Your task to perform on an android device: turn off notifications settings in the gmail app Image 0: 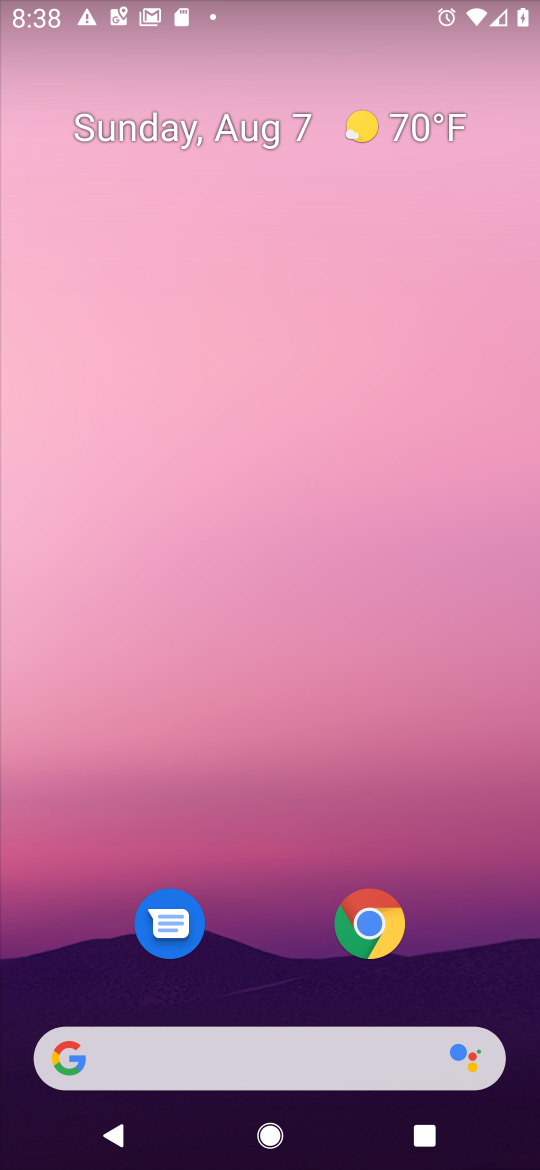
Step 0: drag from (456, 964) to (279, 104)
Your task to perform on an android device: turn off notifications settings in the gmail app Image 1: 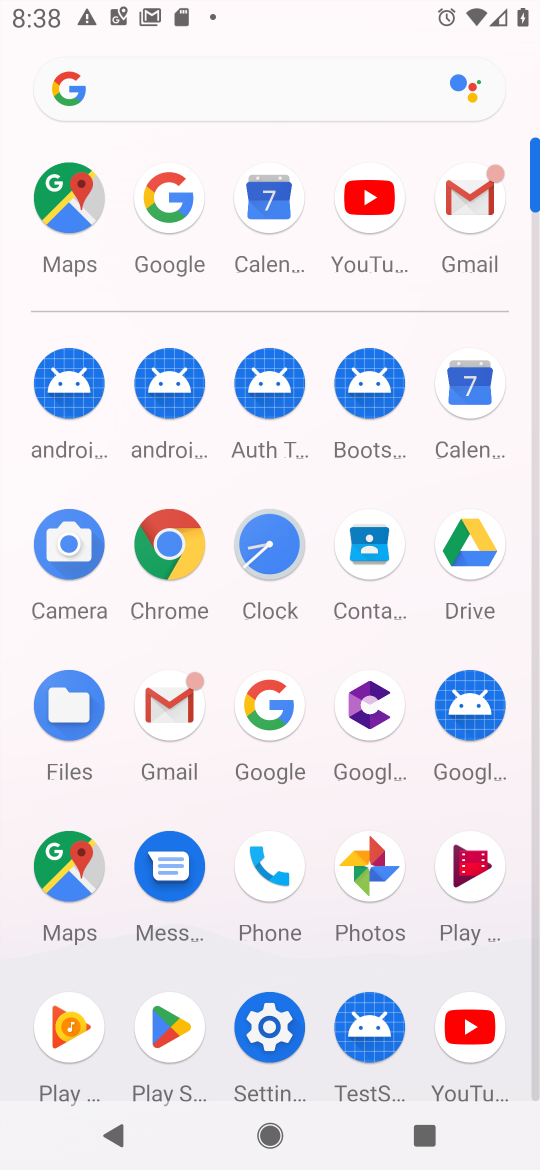
Step 1: click (175, 728)
Your task to perform on an android device: turn off notifications settings in the gmail app Image 2: 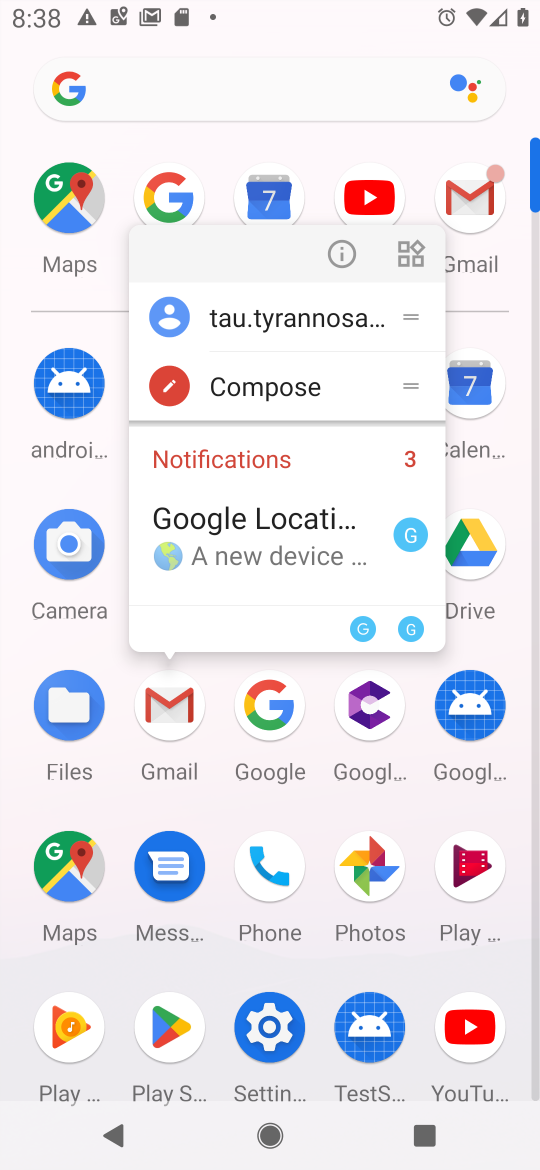
Step 2: click (174, 727)
Your task to perform on an android device: turn off notifications settings in the gmail app Image 3: 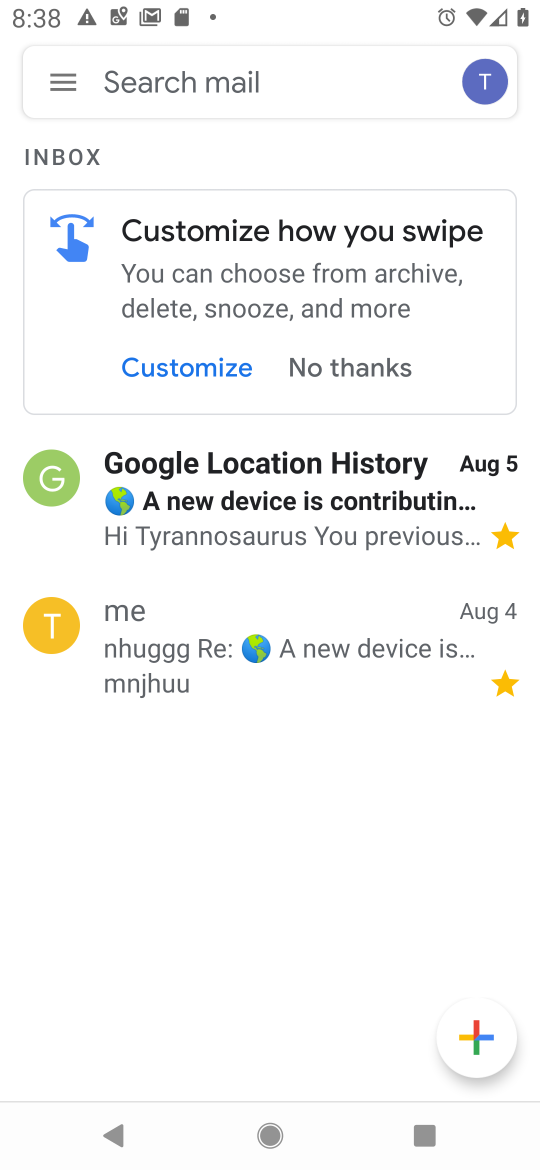
Step 3: click (71, 85)
Your task to perform on an android device: turn off notifications settings in the gmail app Image 4: 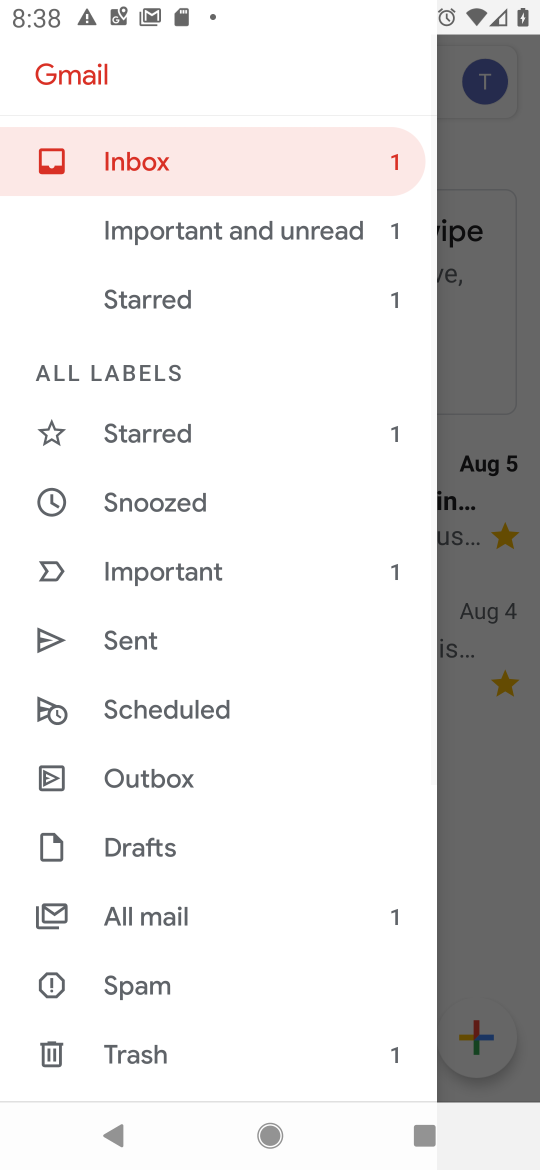
Step 4: drag from (138, 1033) to (208, 75)
Your task to perform on an android device: turn off notifications settings in the gmail app Image 5: 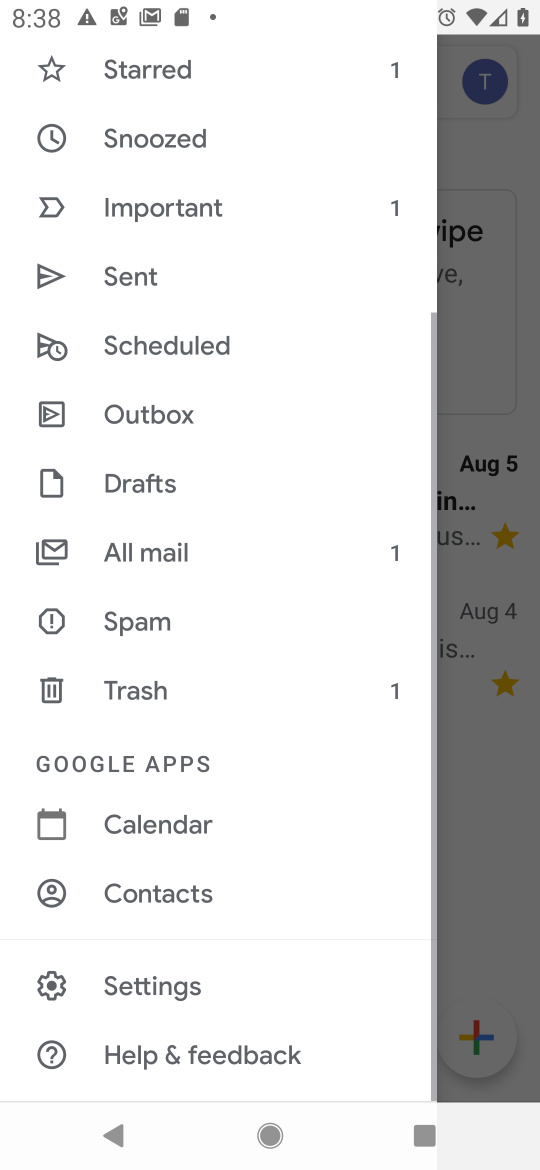
Step 5: click (172, 971)
Your task to perform on an android device: turn off notifications settings in the gmail app Image 6: 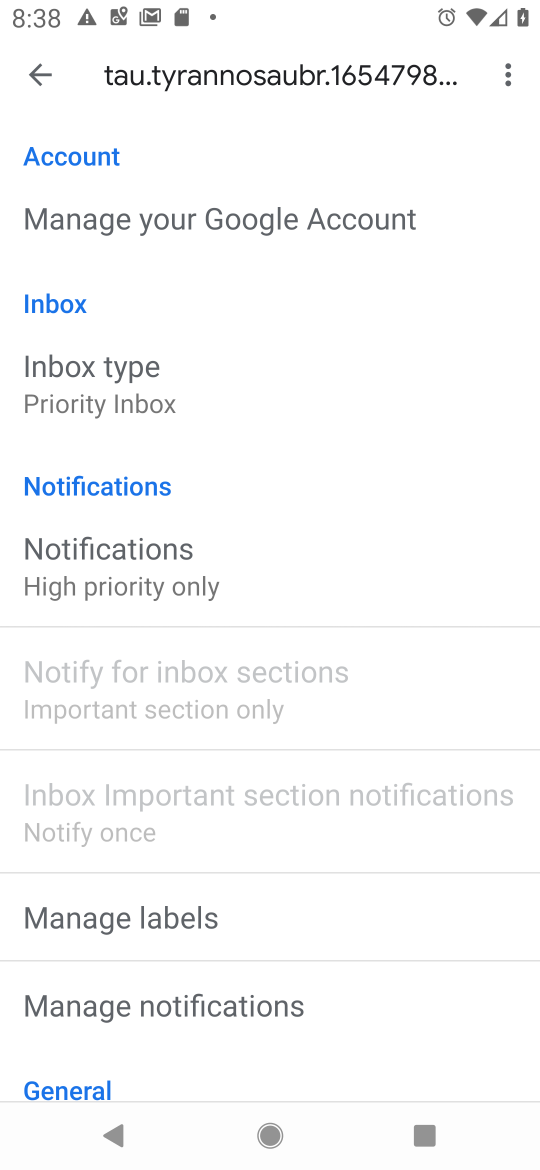
Step 6: click (124, 571)
Your task to perform on an android device: turn off notifications settings in the gmail app Image 7: 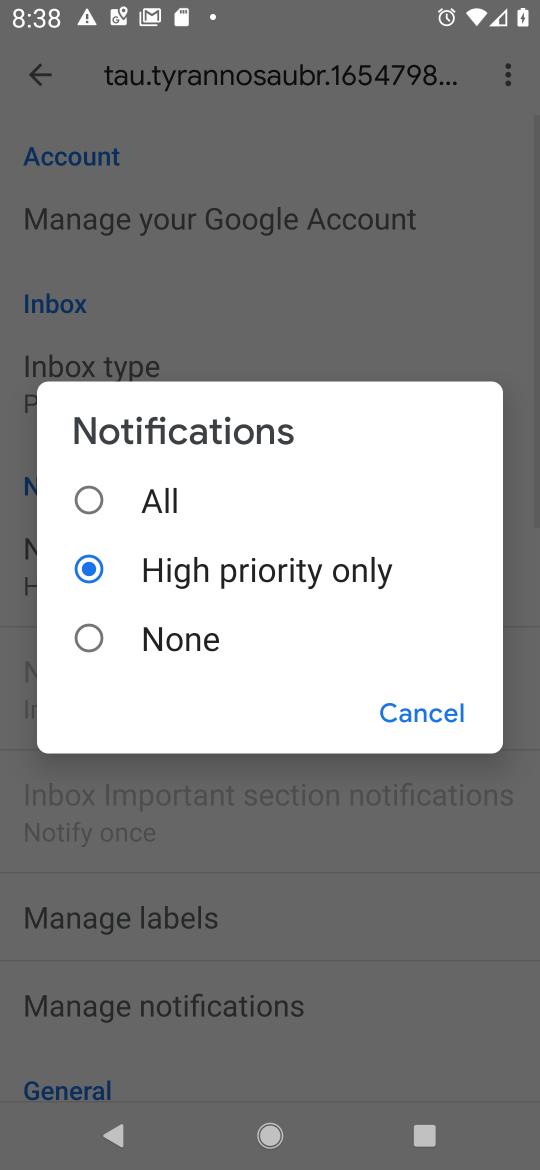
Step 7: click (119, 633)
Your task to perform on an android device: turn off notifications settings in the gmail app Image 8: 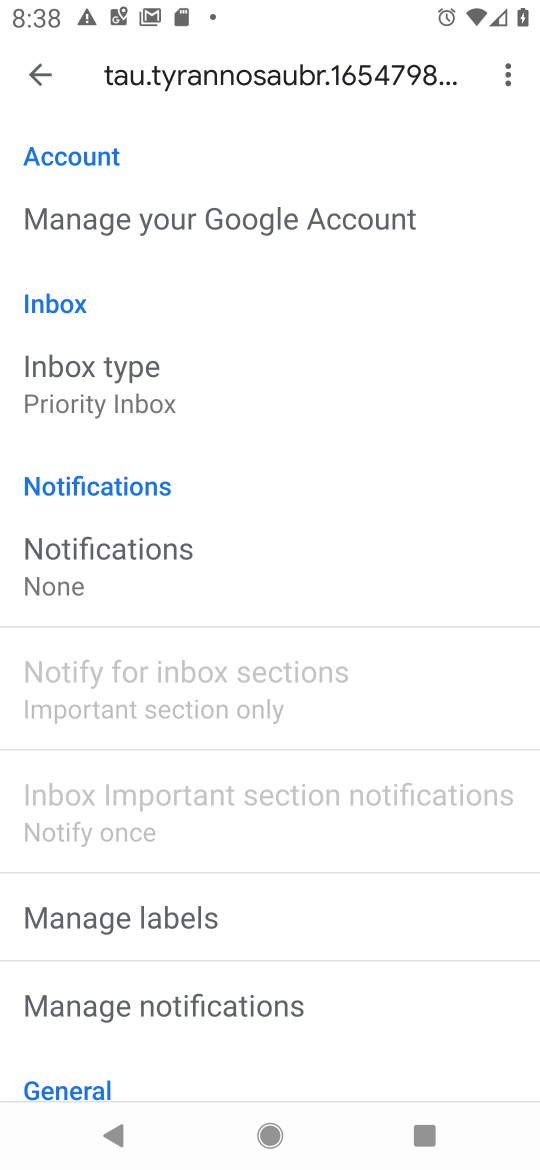
Step 8: task complete